Your task to perform on an android device: Open ESPN.com Image 0: 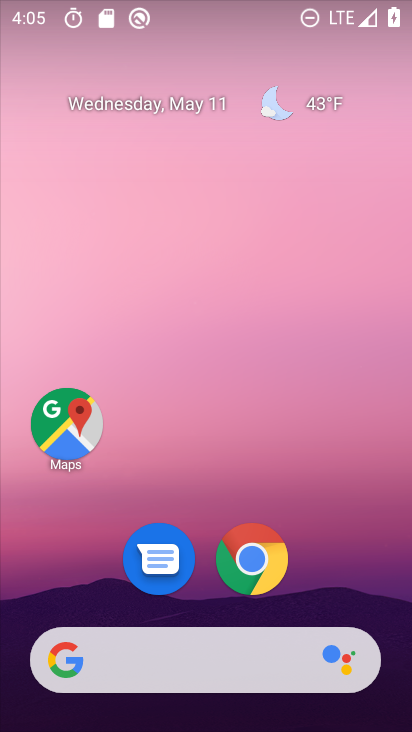
Step 0: click (264, 557)
Your task to perform on an android device: Open ESPN.com Image 1: 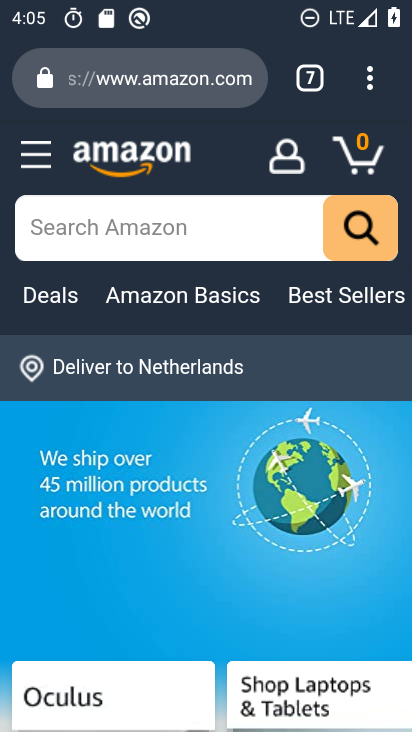
Step 1: click (308, 73)
Your task to perform on an android device: Open ESPN.com Image 2: 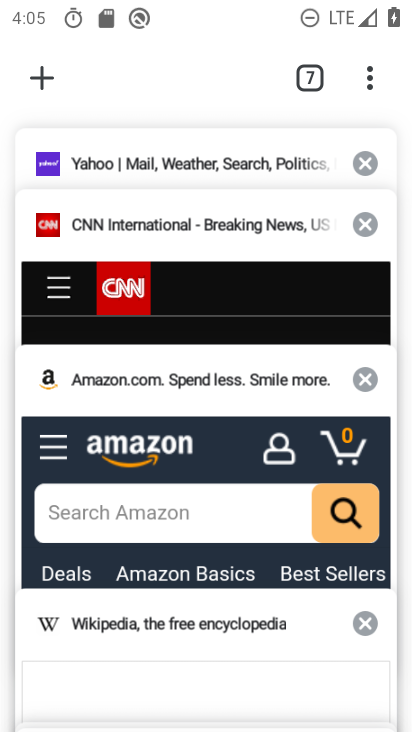
Step 2: drag from (173, 197) to (153, 619)
Your task to perform on an android device: Open ESPN.com Image 3: 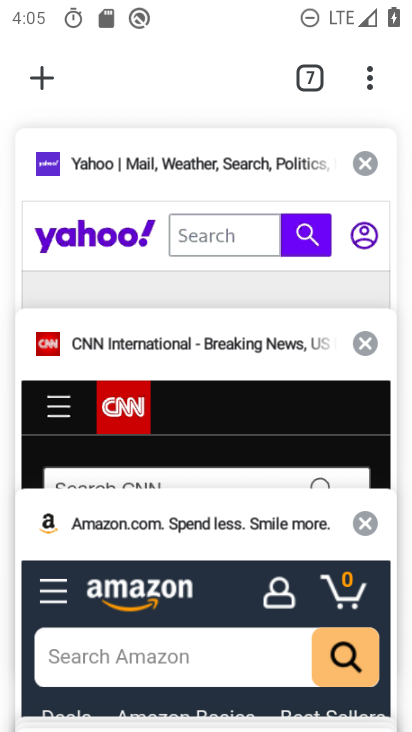
Step 3: drag from (162, 543) to (193, 162)
Your task to perform on an android device: Open ESPN.com Image 4: 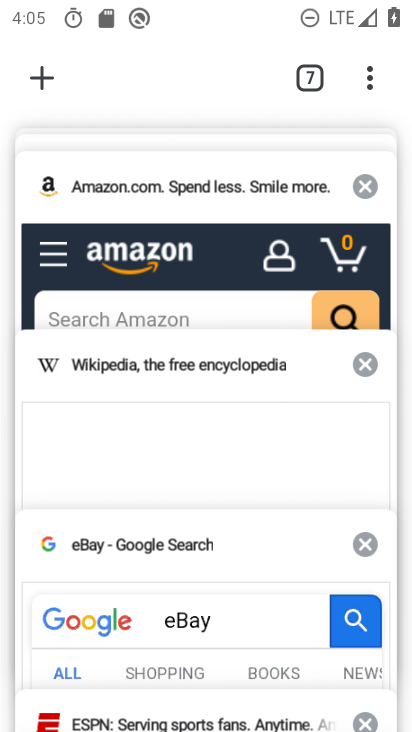
Step 4: drag from (166, 515) to (183, 203)
Your task to perform on an android device: Open ESPN.com Image 5: 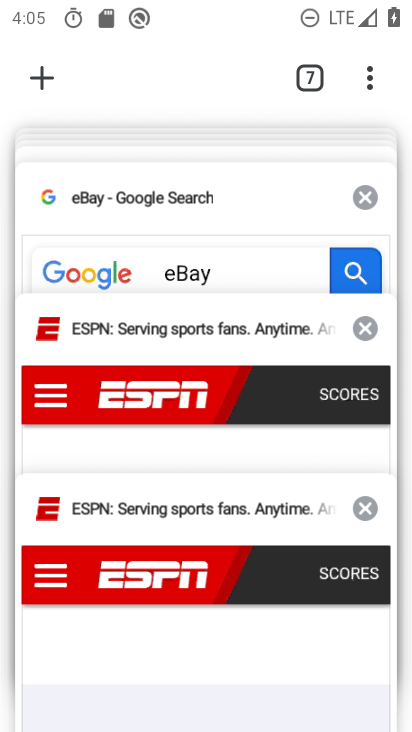
Step 5: click (183, 372)
Your task to perform on an android device: Open ESPN.com Image 6: 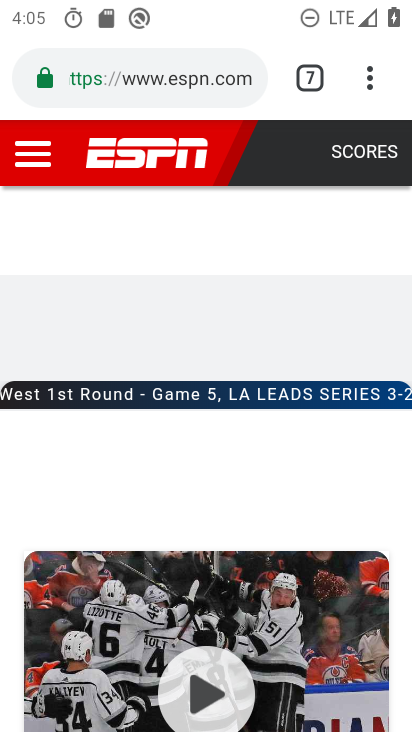
Step 6: task complete